Your task to perform on an android device: Search for the best rated electric lawnmower on Home Depot Image 0: 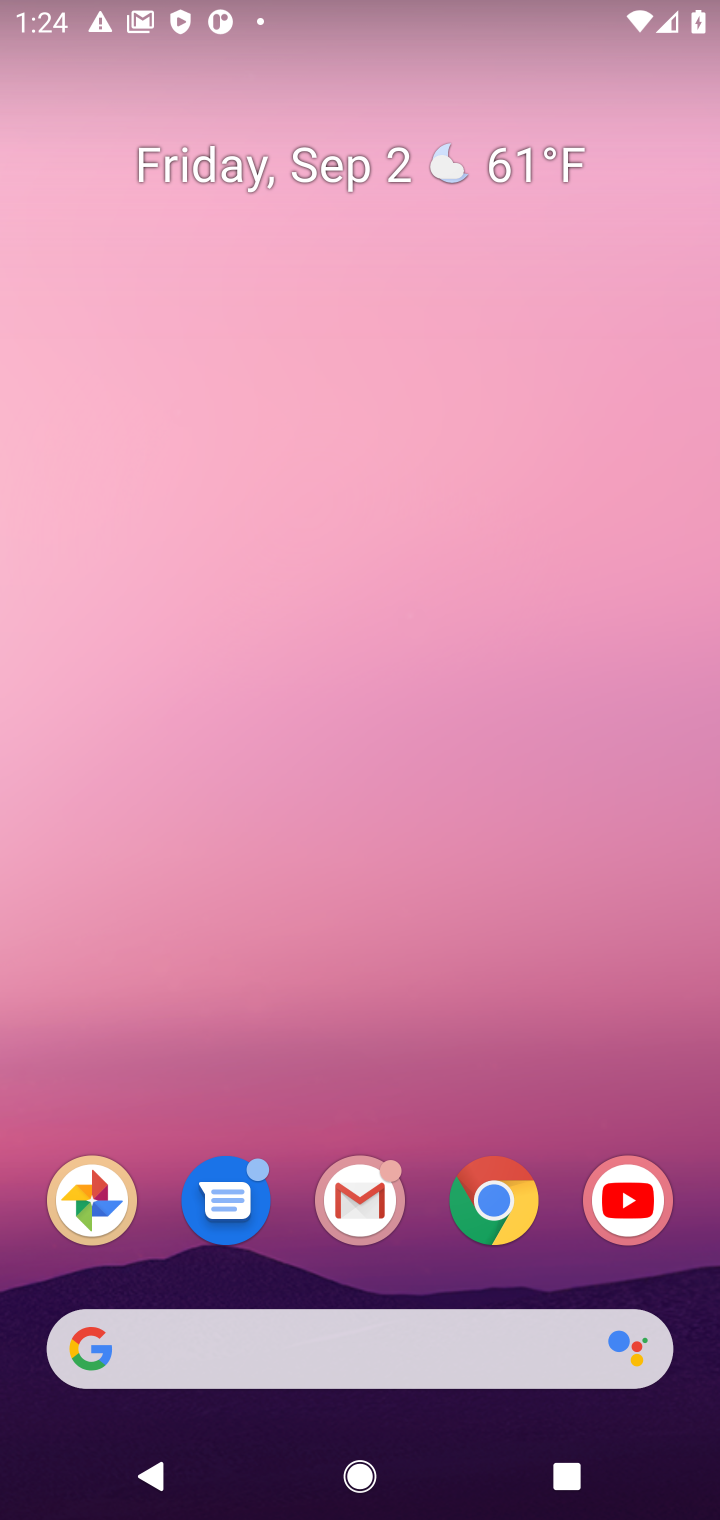
Step 0: click (483, 1210)
Your task to perform on an android device: Search for the best rated electric lawnmower on Home Depot Image 1: 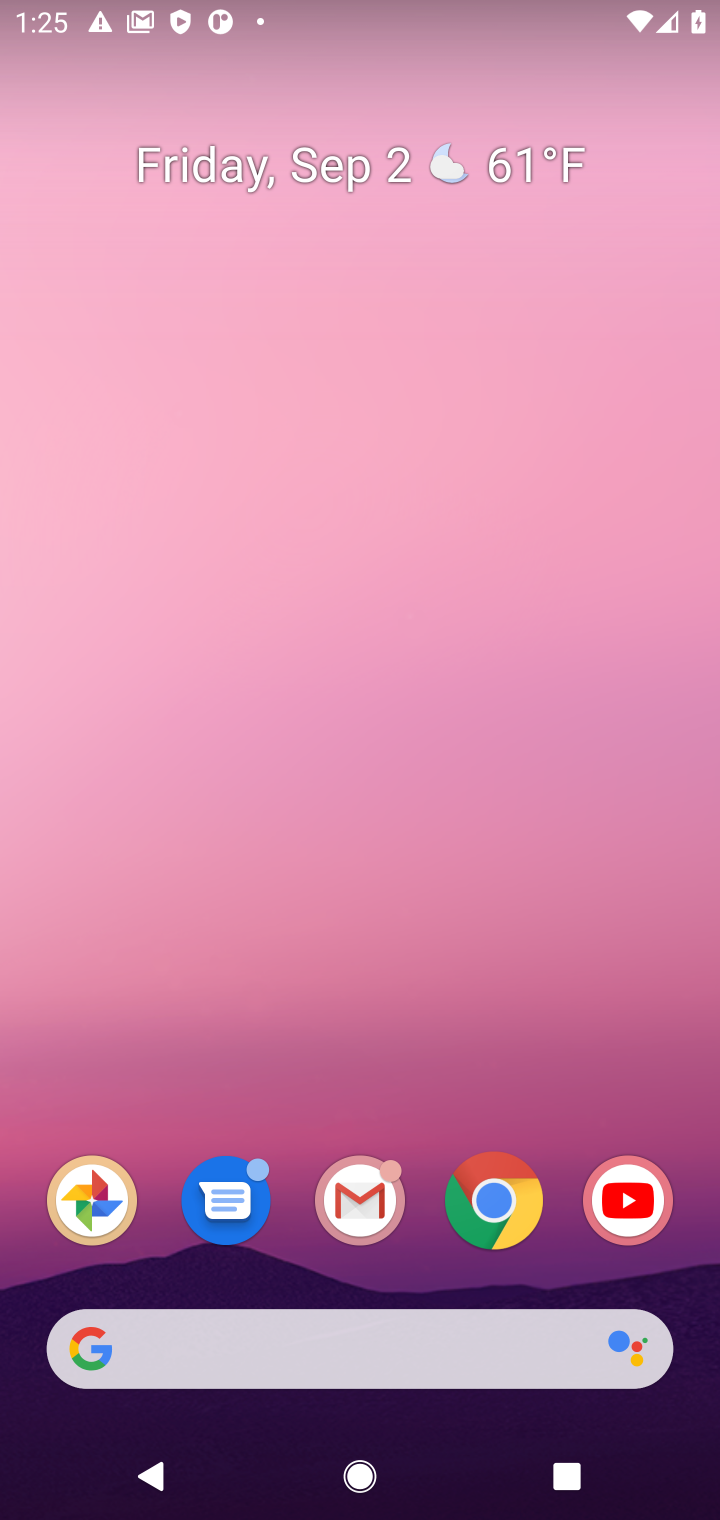
Step 1: click (483, 1212)
Your task to perform on an android device: Search for the best rated electric lawnmower on Home Depot Image 2: 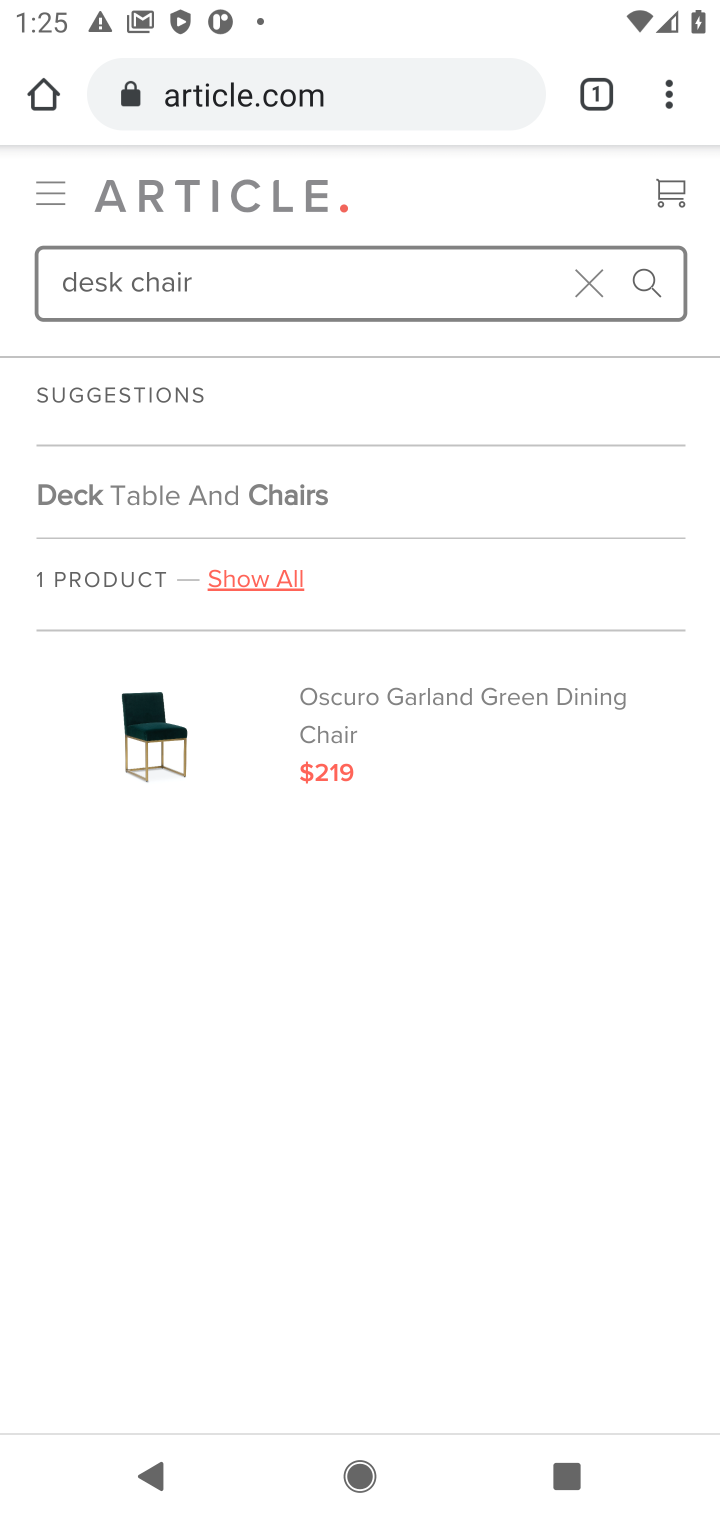
Step 2: click (397, 95)
Your task to perform on an android device: Search for the best rated electric lawnmower on Home Depot Image 3: 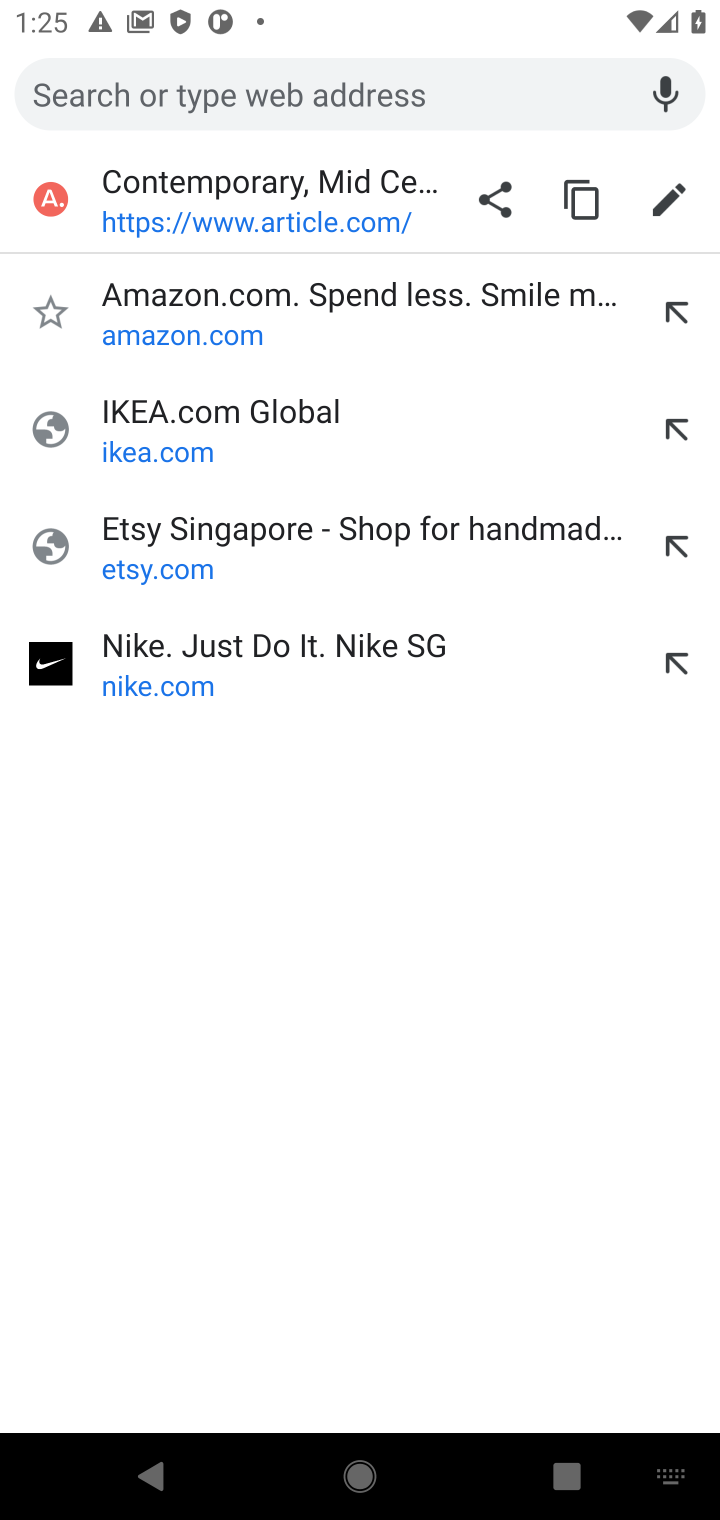
Step 3: press enter
Your task to perform on an android device: Search for the best rated electric lawnmower on Home Depot Image 4: 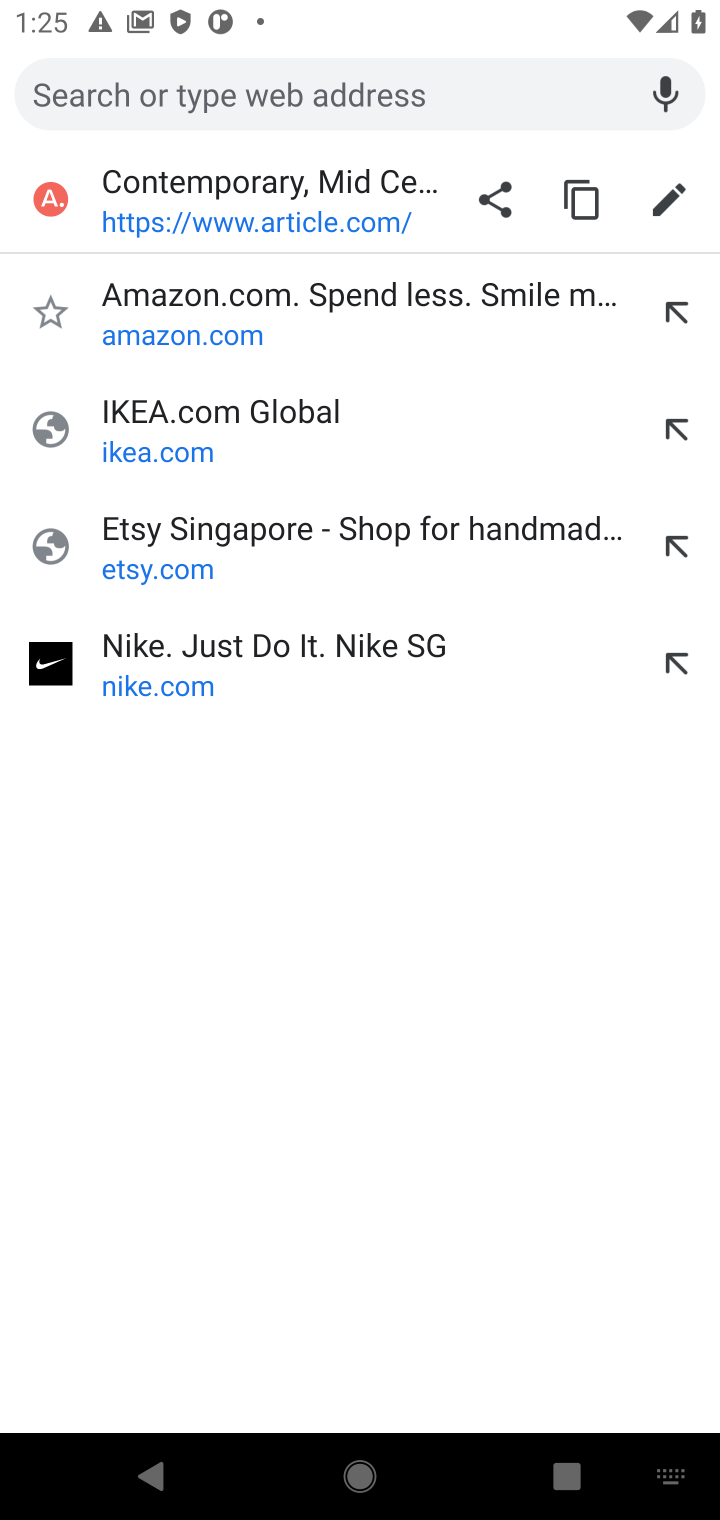
Step 4: type "Home Depot"
Your task to perform on an android device: Search for the best rated electric lawnmower on Home Depot Image 5: 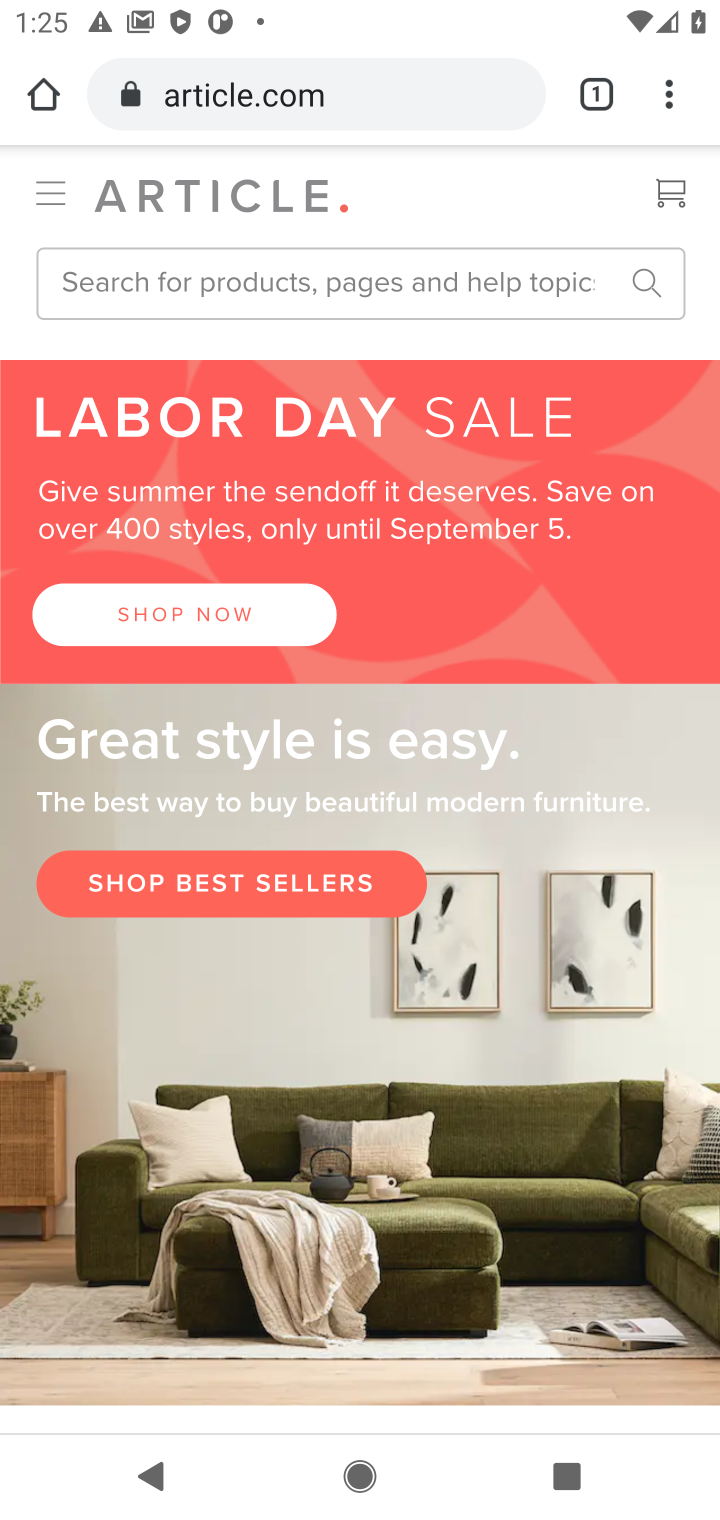
Step 5: click (462, 277)
Your task to perform on an android device: Search for the best rated electric lawnmower on Home Depot Image 6: 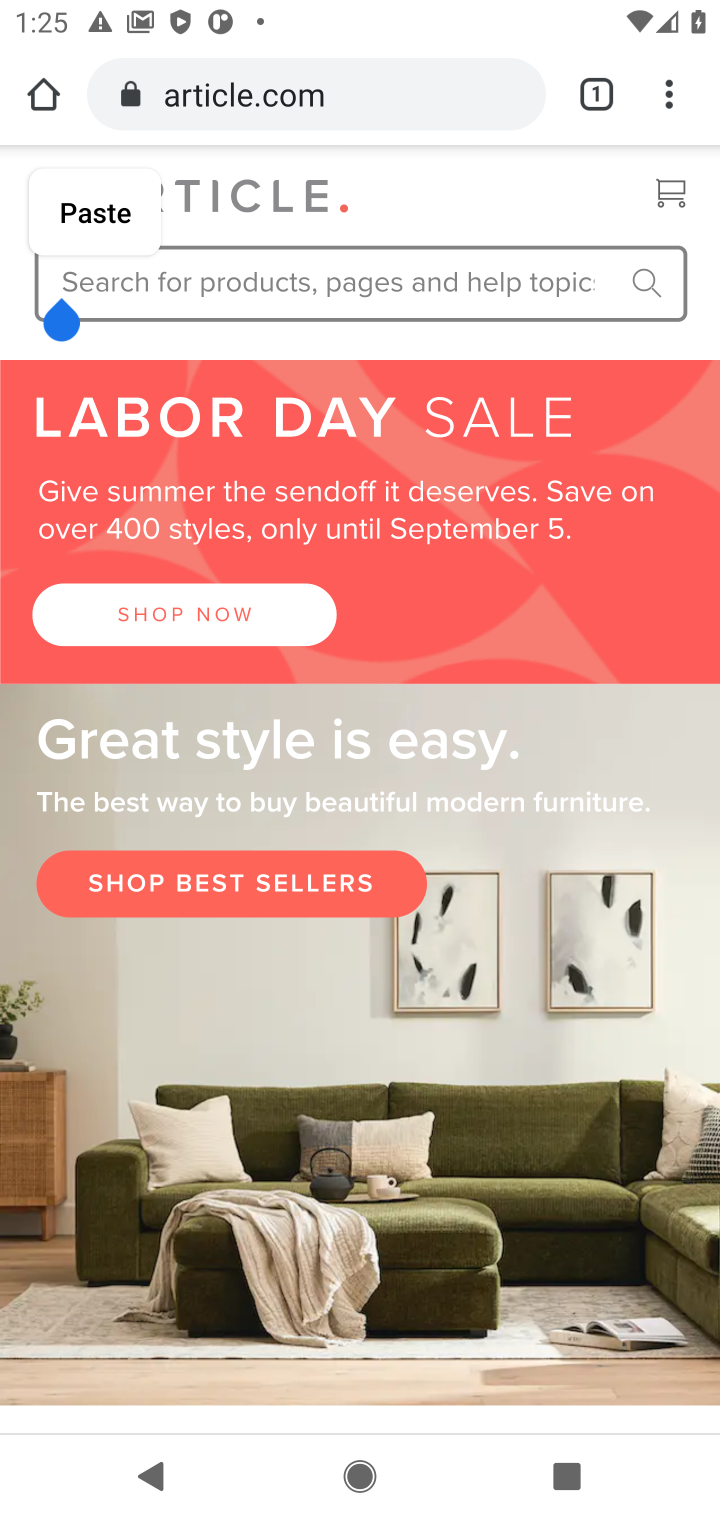
Step 6: press enter
Your task to perform on an android device: Search for the best rated electric lawnmower on Home Depot Image 7: 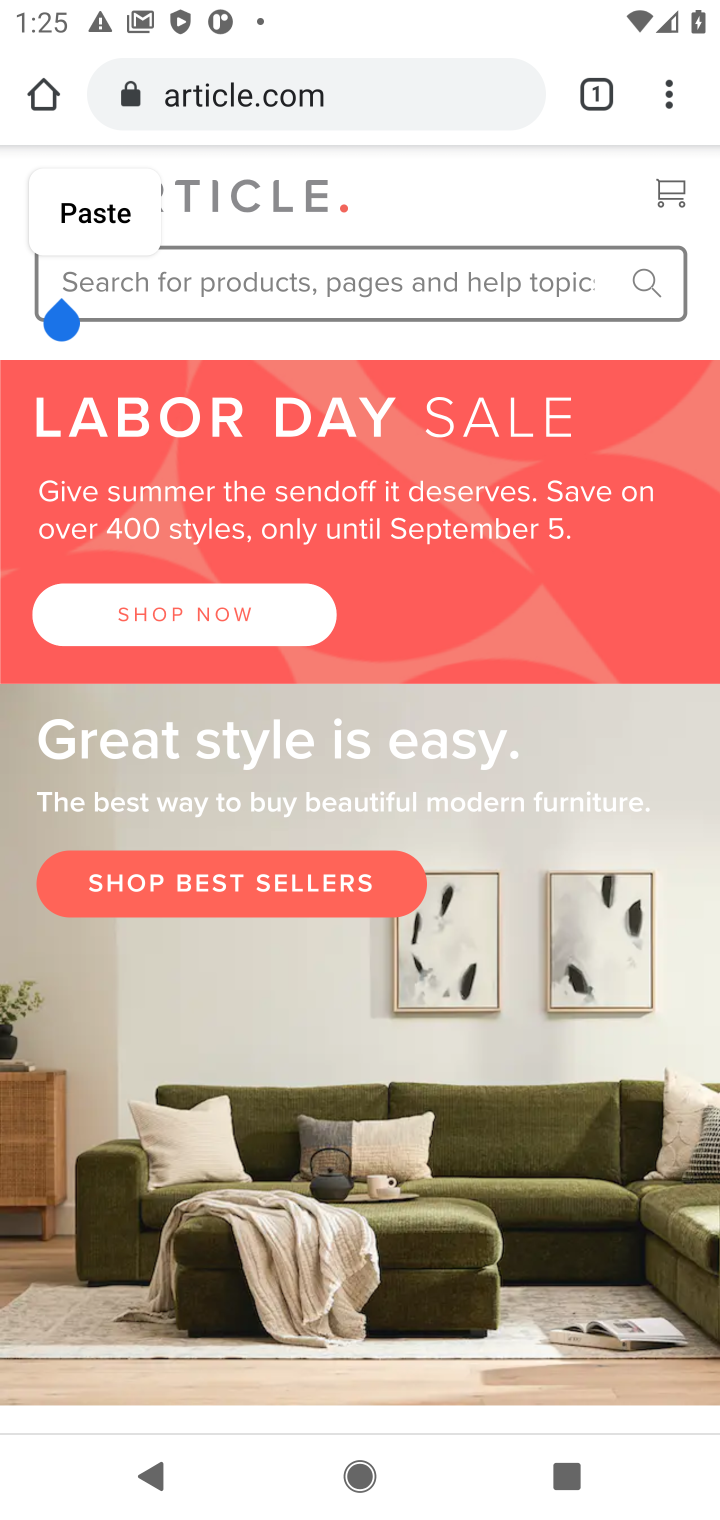
Step 7: type "electric lawnmower"
Your task to perform on an android device: Search for the best rated electric lawnmower on Home Depot Image 8: 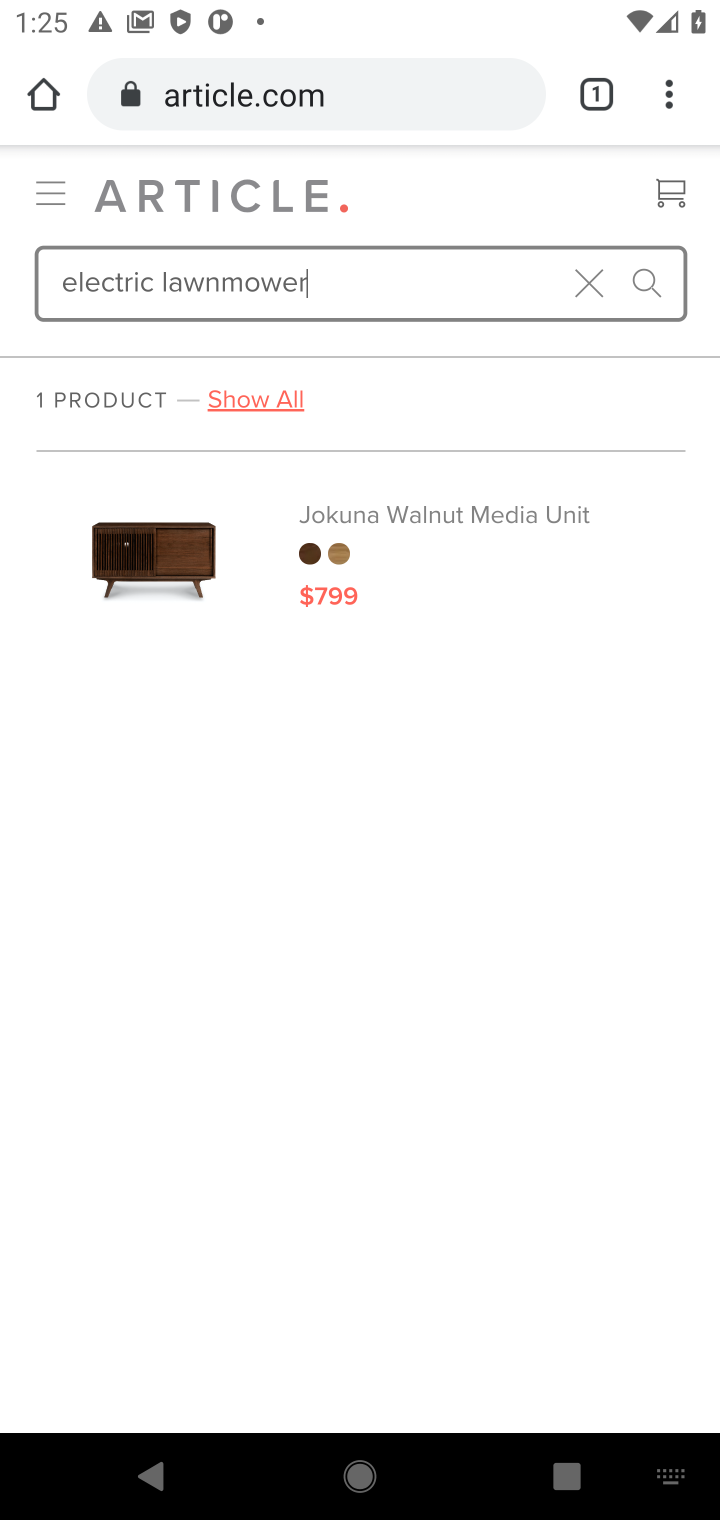
Step 8: click (379, 100)
Your task to perform on an android device: Search for the best rated electric lawnmower on Home Depot Image 9: 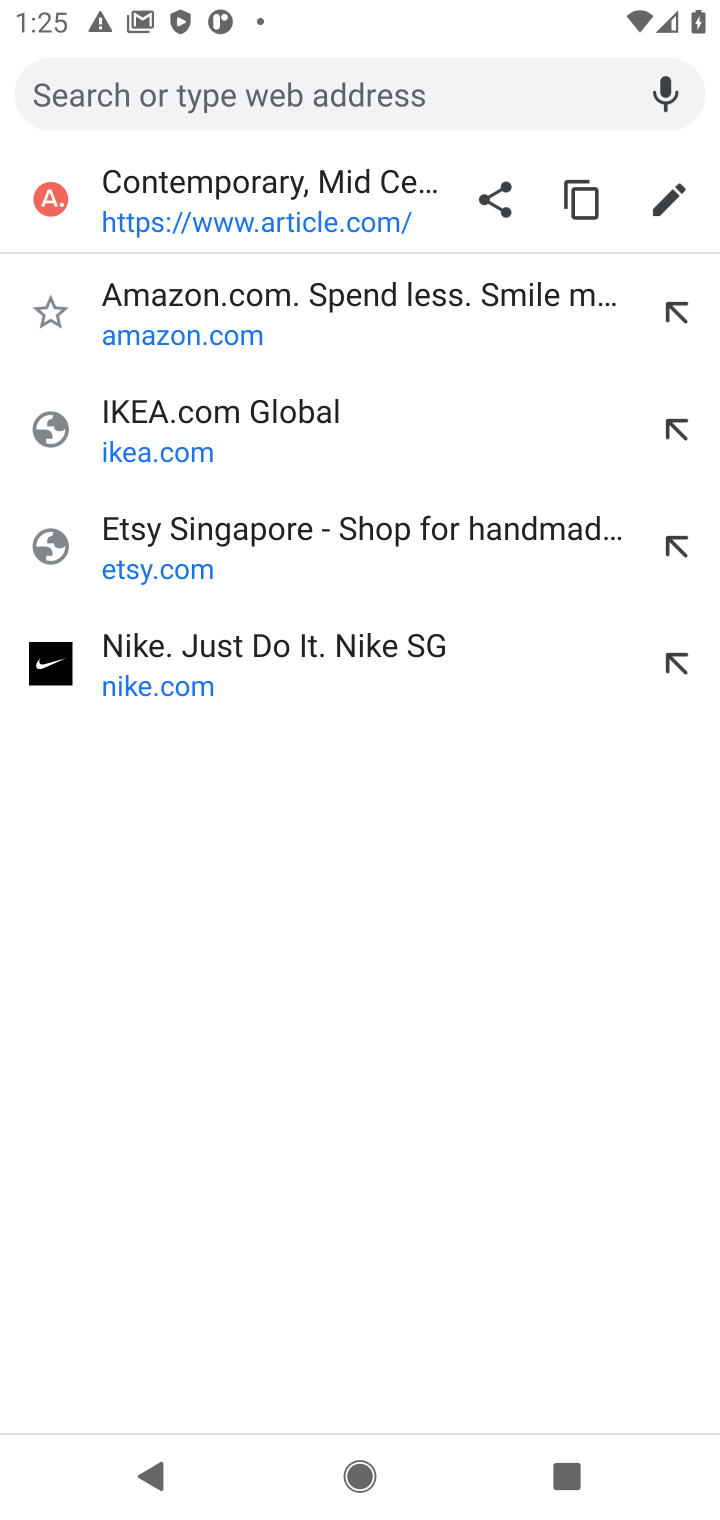
Step 9: type " Home Depot"
Your task to perform on an android device: Search for the best rated electric lawnmower on Home Depot Image 10: 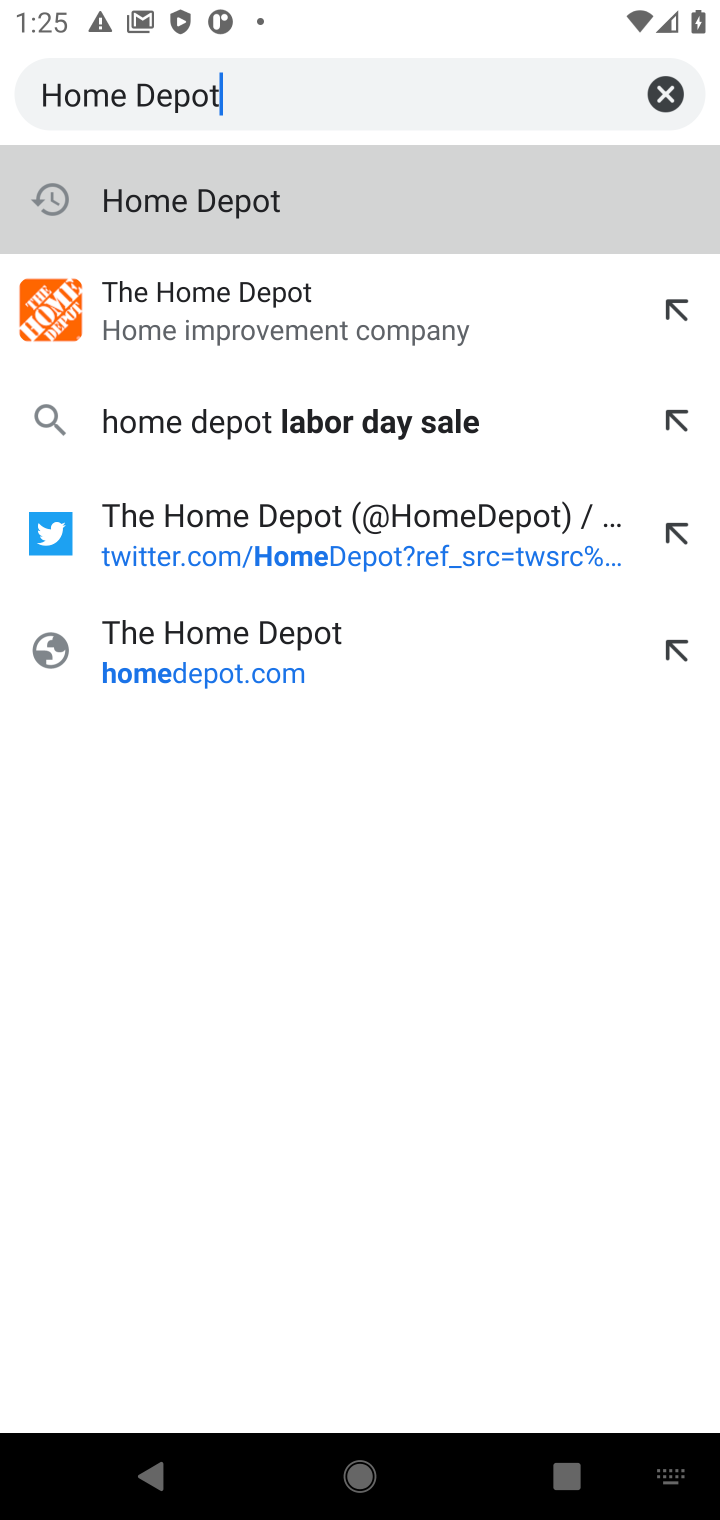
Step 10: press enter
Your task to perform on an android device: Search for the best rated electric lawnmower on Home Depot Image 11: 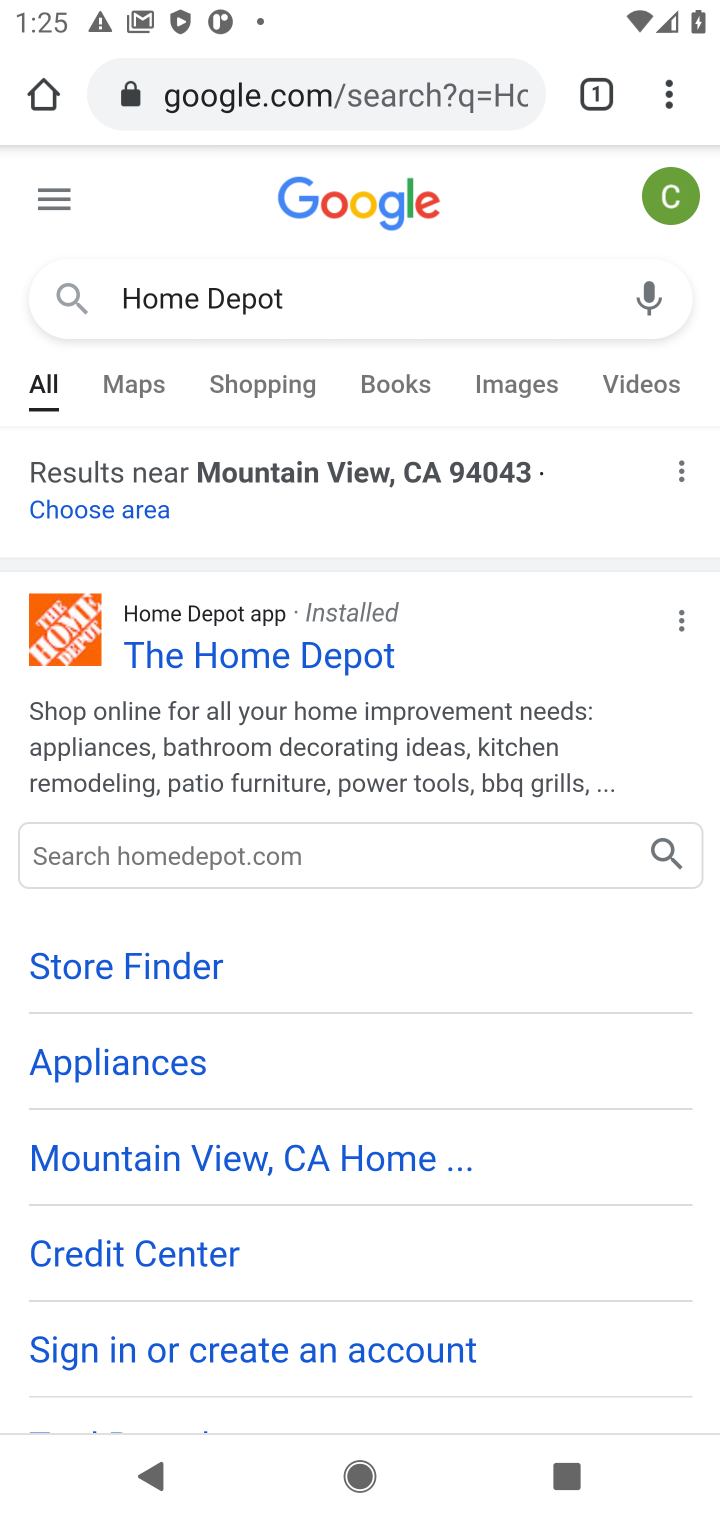
Step 11: drag from (396, 1125) to (462, 309)
Your task to perform on an android device: Search for the best rated electric lawnmower on Home Depot Image 12: 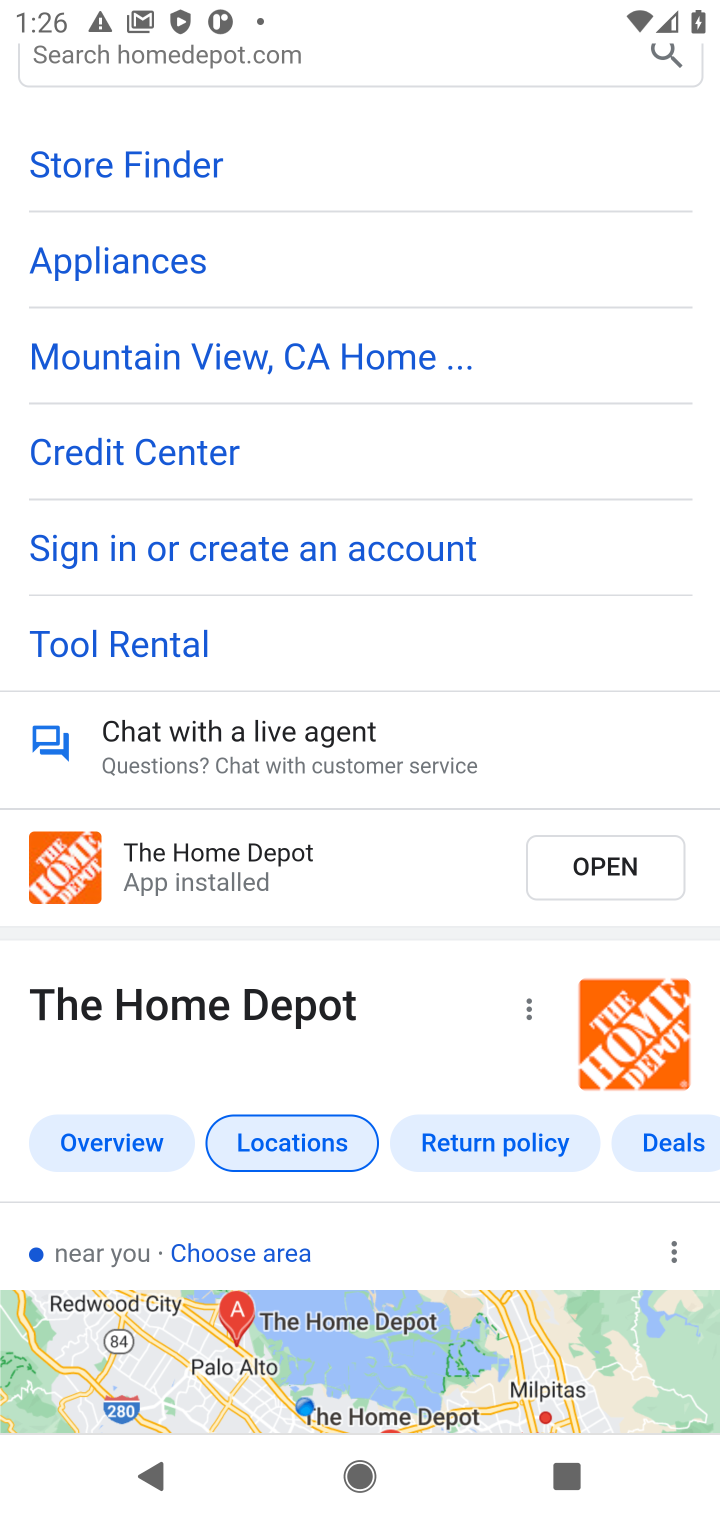
Step 12: drag from (365, 1310) to (517, 565)
Your task to perform on an android device: Search for the best rated electric lawnmower on Home Depot Image 13: 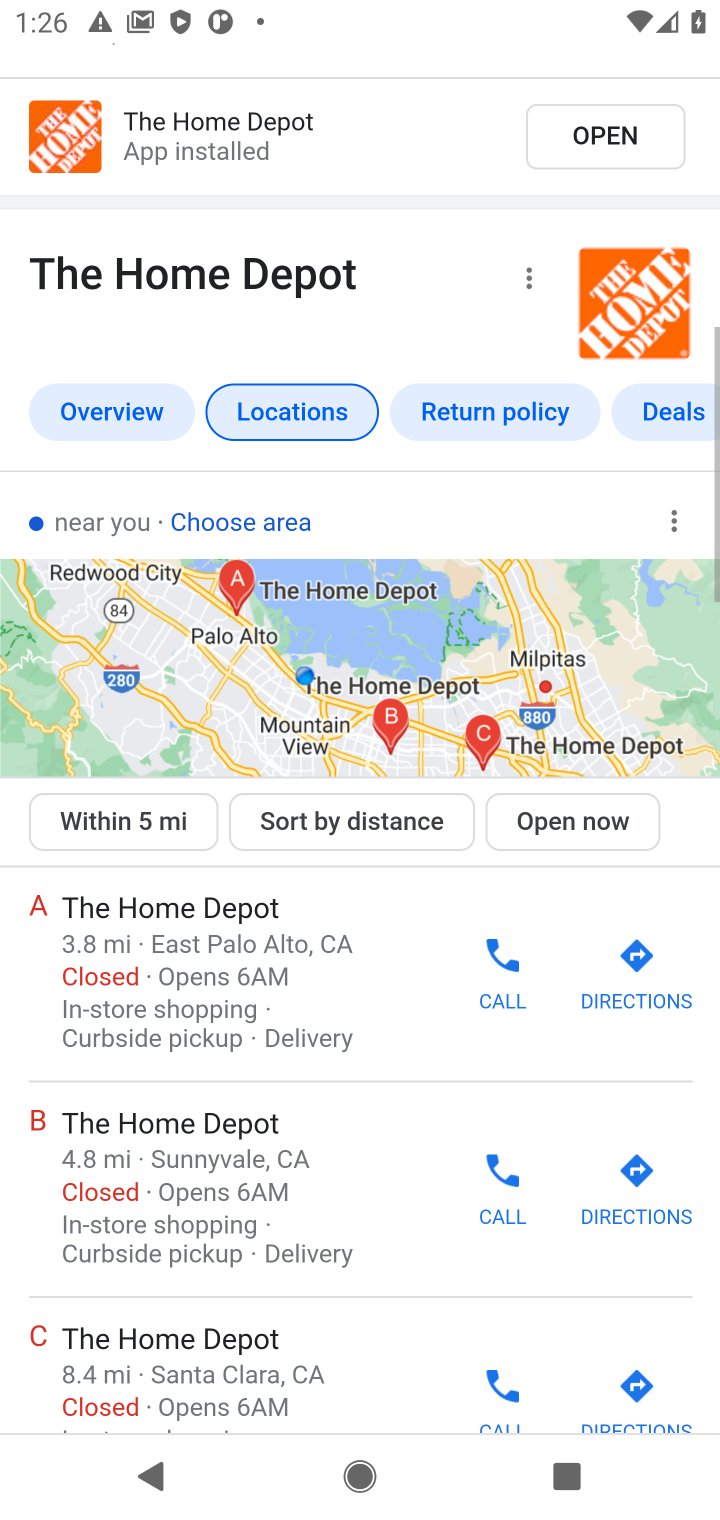
Step 13: drag from (369, 924) to (445, 531)
Your task to perform on an android device: Search for the best rated electric lawnmower on Home Depot Image 14: 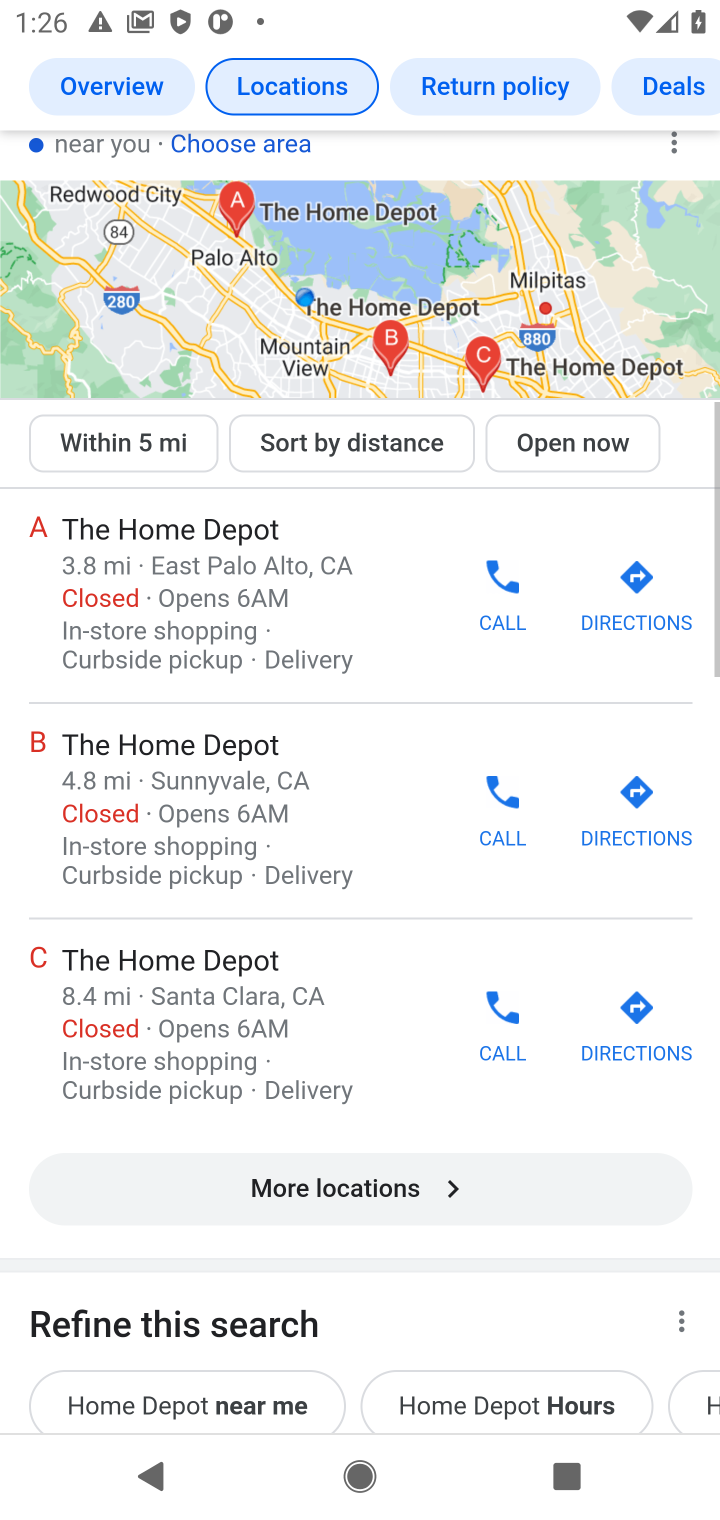
Step 14: drag from (354, 946) to (478, 305)
Your task to perform on an android device: Search for the best rated electric lawnmower on Home Depot Image 15: 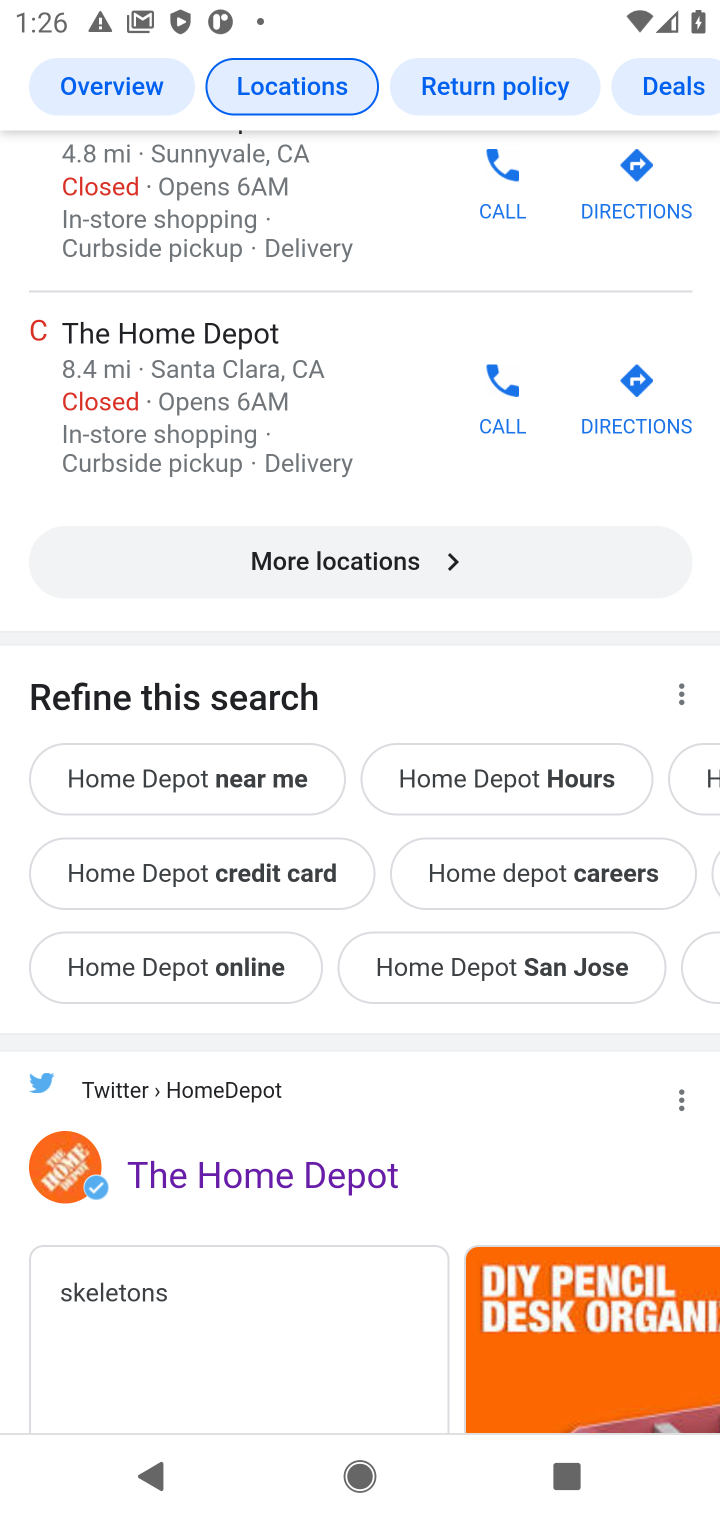
Step 15: click (292, 1176)
Your task to perform on an android device: Search for the best rated electric lawnmower on Home Depot Image 16: 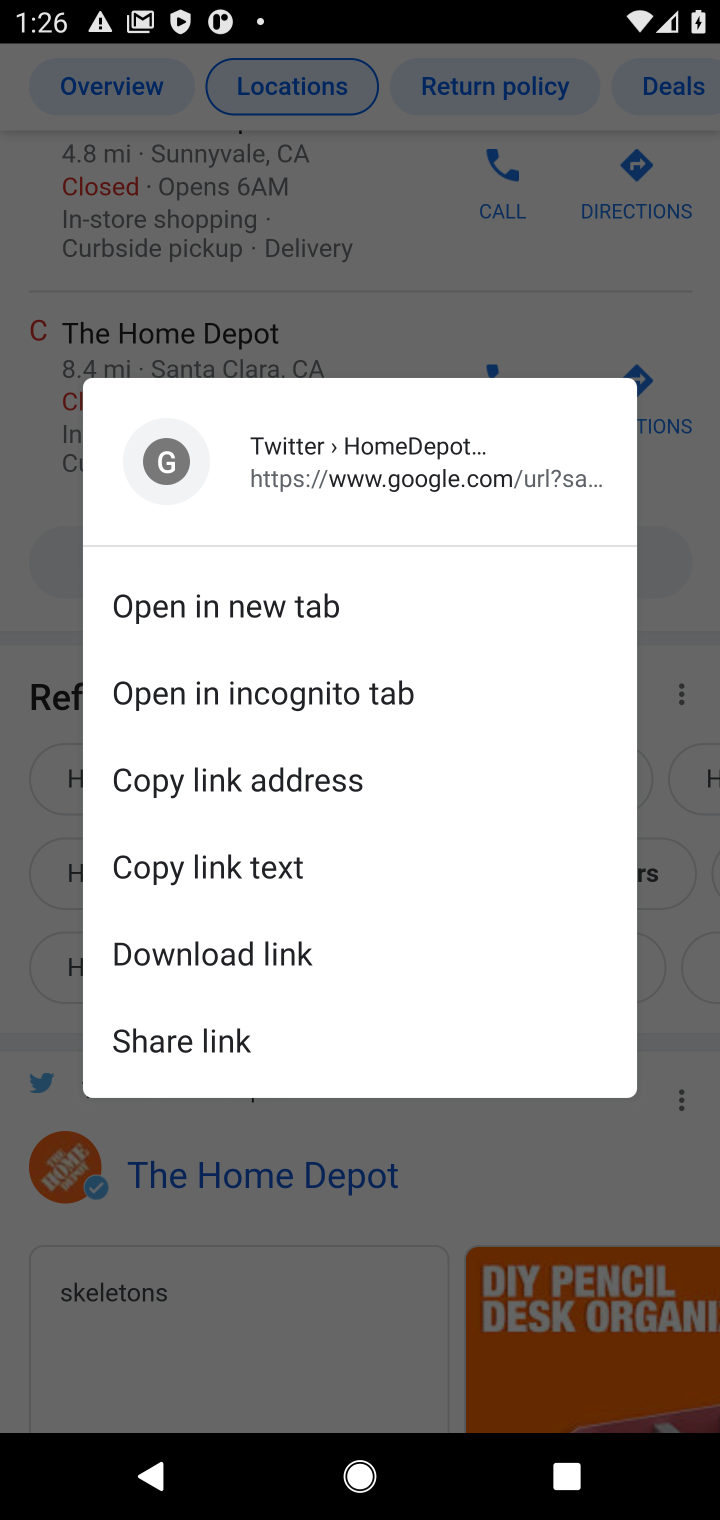
Step 16: task complete